Your task to perform on an android device: Open eBay Image 0: 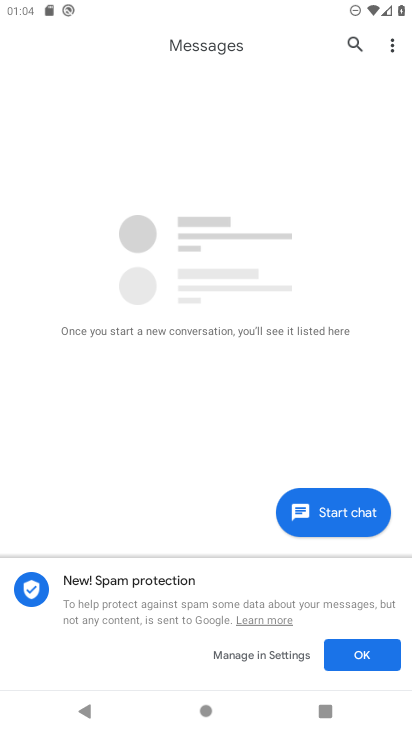
Step 0: press home button
Your task to perform on an android device: Open eBay Image 1: 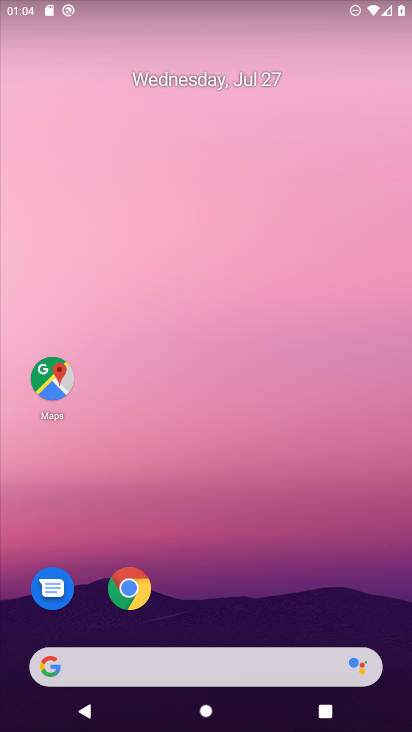
Step 1: click (105, 633)
Your task to perform on an android device: Open eBay Image 2: 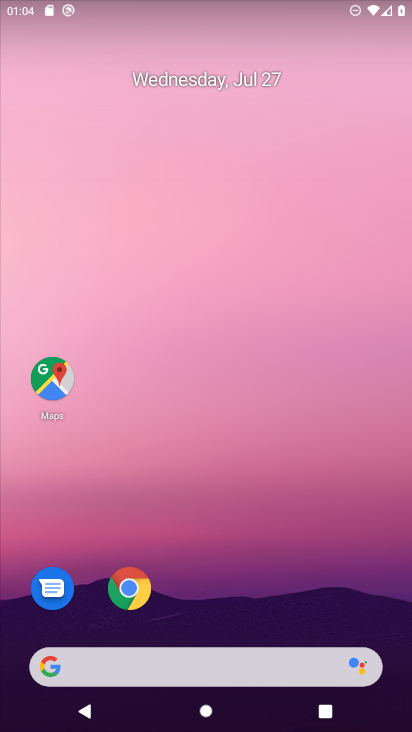
Step 2: click (100, 670)
Your task to perform on an android device: Open eBay Image 3: 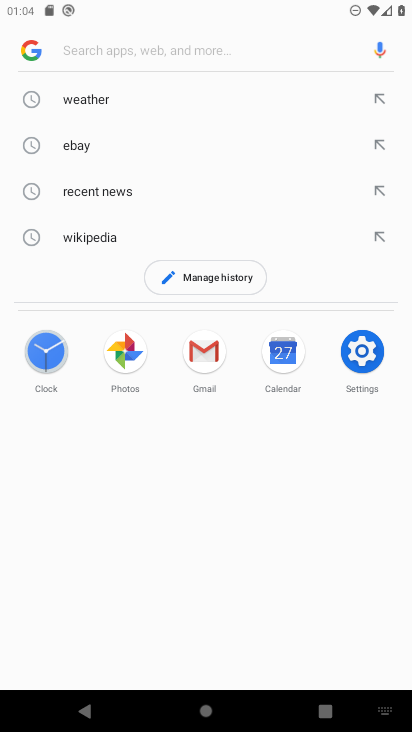
Step 3: click (70, 149)
Your task to perform on an android device: Open eBay Image 4: 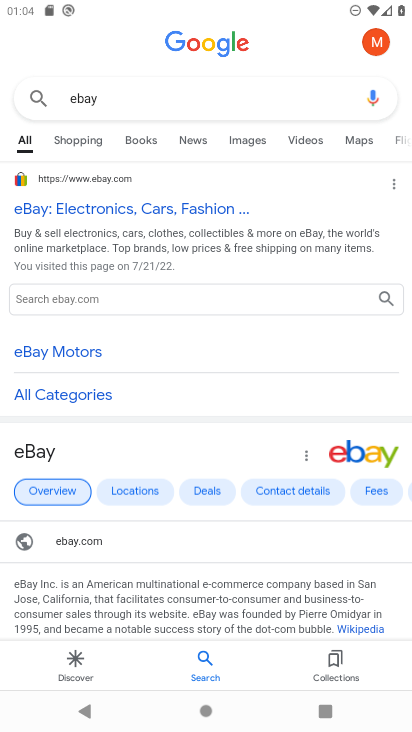
Step 4: task complete